Your task to perform on an android device: all mails in gmail Image 0: 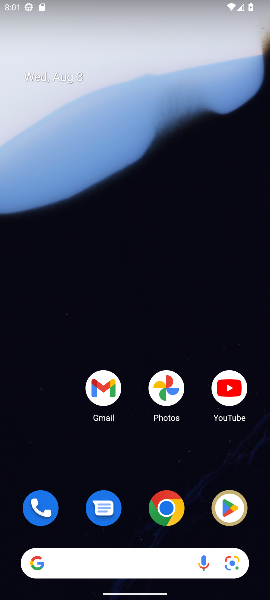
Step 0: drag from (121, 527) to (125, 45)
Your task to perform on an android device: all mails in gmail Image 1: 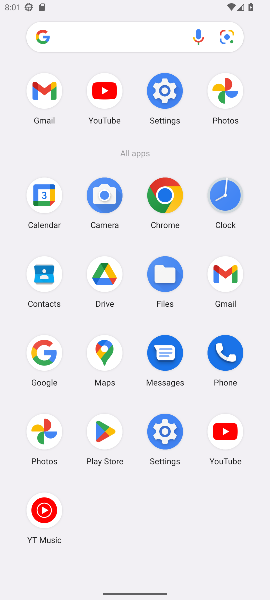
Step 1: click (225, 275)
Your task to perform on an android device: all mails in gmail Image 2: 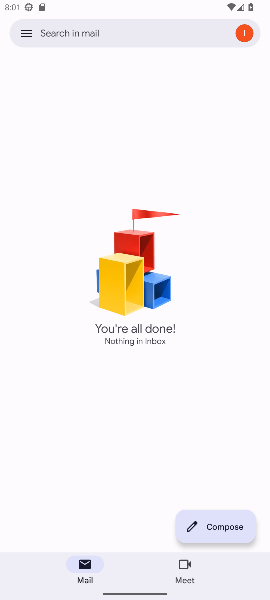
Step 2: click (24, 29)
Your task to perform on an android device: all mails in gmail Image 3: 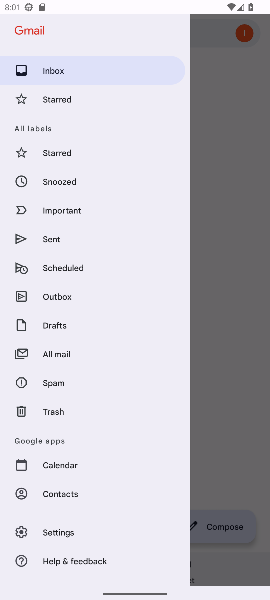
Step 3: click (59, 350)
Your task to perform on an android device: all mails in gmail Image 4: 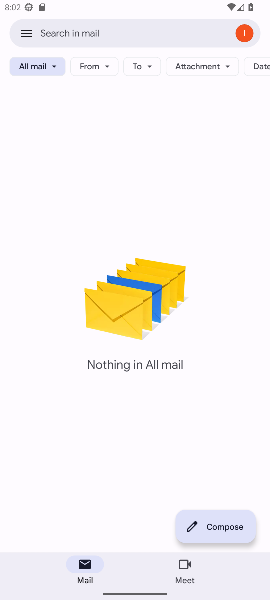
Step 4: click (19, 36)
Your task to perform on an android device: all mails in gmail Image 5: 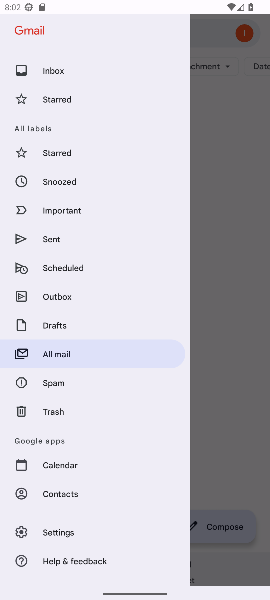
Step 5: click (75, 361)
Your task to perform on an android device: all mails in gmail Image 6: 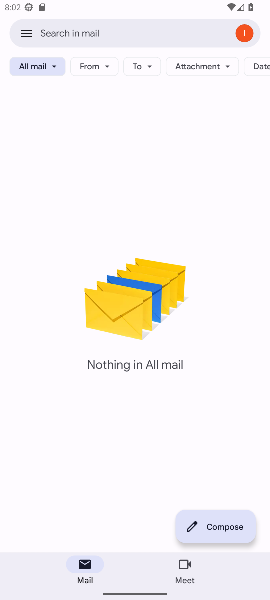
Step 6: task complete